Your task to perform on an android device: turn pop-ups off in chrome Image 0: 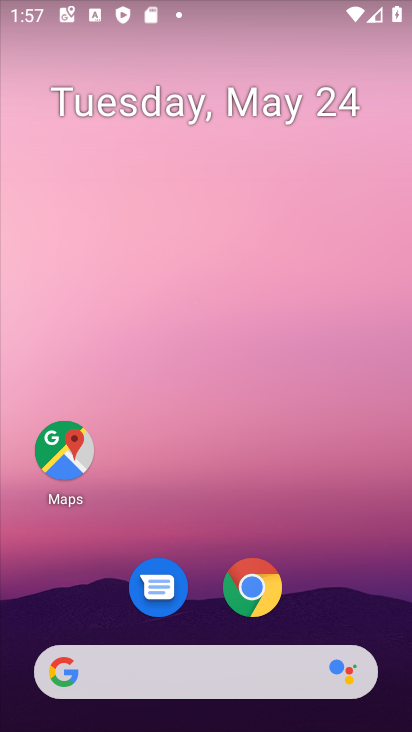
Step 0: click (253, 606)
Your task to perform on an android device: turn pop-ups off in chrome Image 1: 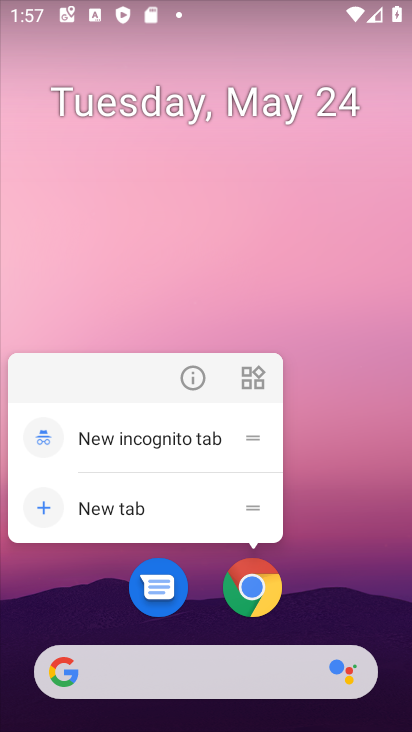
Step 1: click (252, 606)
Your task to perform on an android device: turn pop-ups off in chrome Image 2: 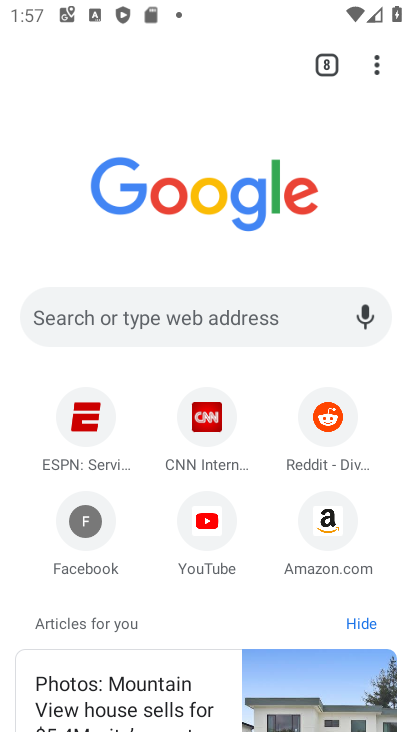
Step 2: click (376, 71)
Your task to perform on an android device: turn pop-ups off in chrome Image 3: 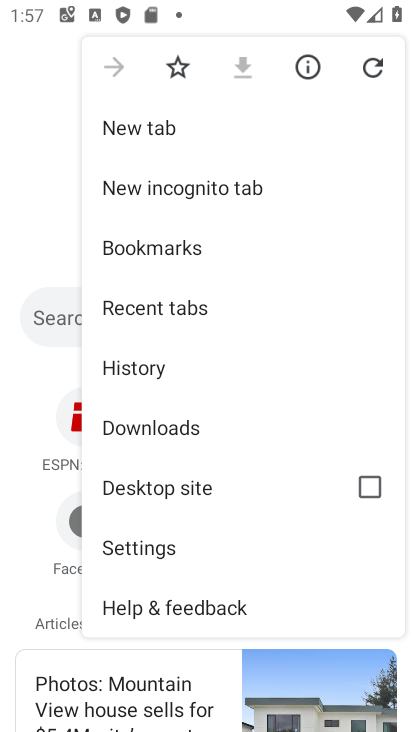
Step 3: click (121, 554)
Your task to perform on an android device: turn pop-ups off in chrome Image 4: 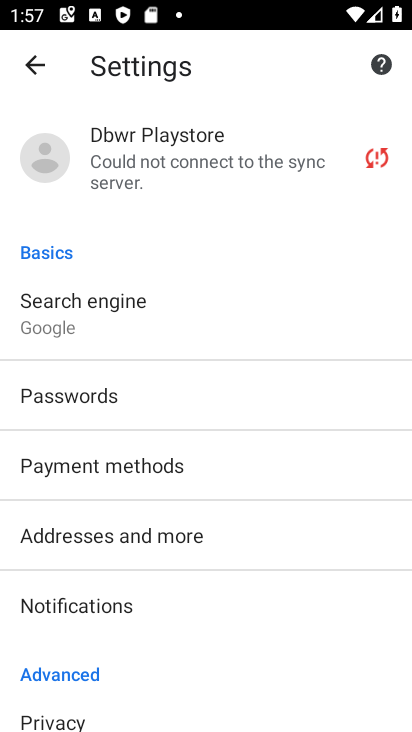
Step 4: drag from (85, 692) to (153, 259)
Your task to perform on an android device: turn pop-ups off in chrome Image 5: 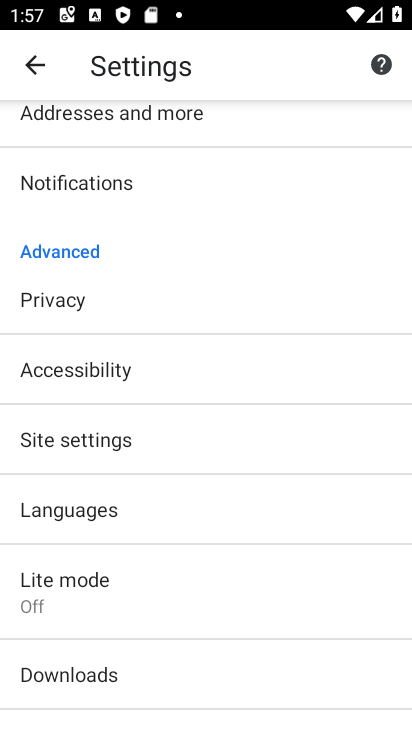
Step 5: click (133, 437)
Your task to perform on an android device: turn pop-ups off in chrome Image 6: 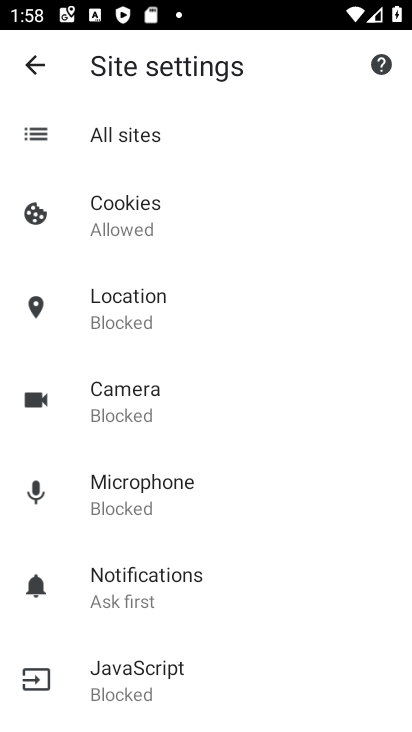
Step 6: drag from (204, 656) to (225, 276)
Your task to perform on an android device: turn pop-ups off in chrome Image 7: 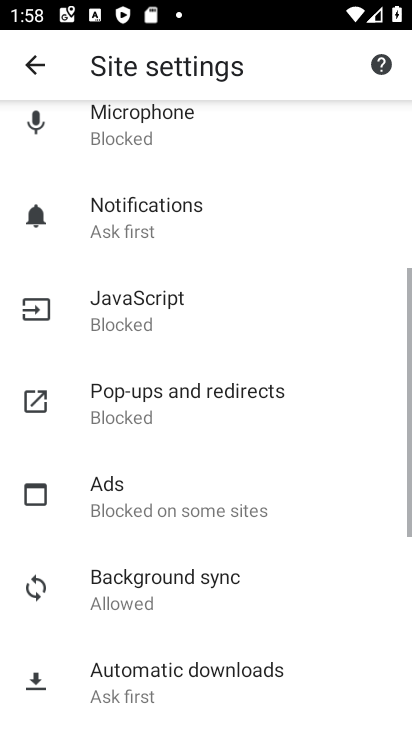
Step 7: click (186, 412)
Your task to perform on an android device: turn pop-ups off in chrome Image 8: 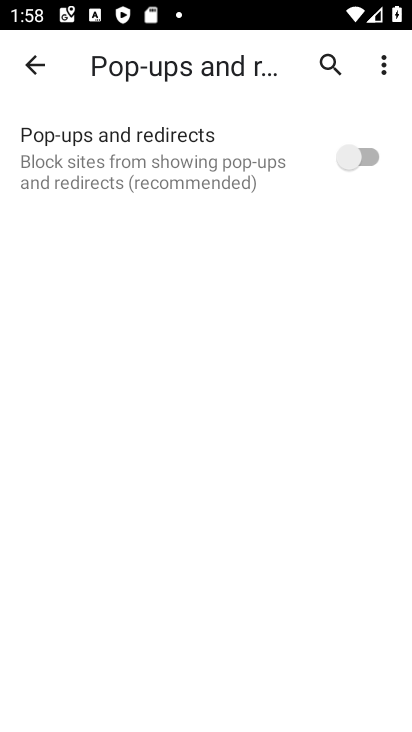
Step 8: task complete